Your task to perform on an android device: check storage Image 0: 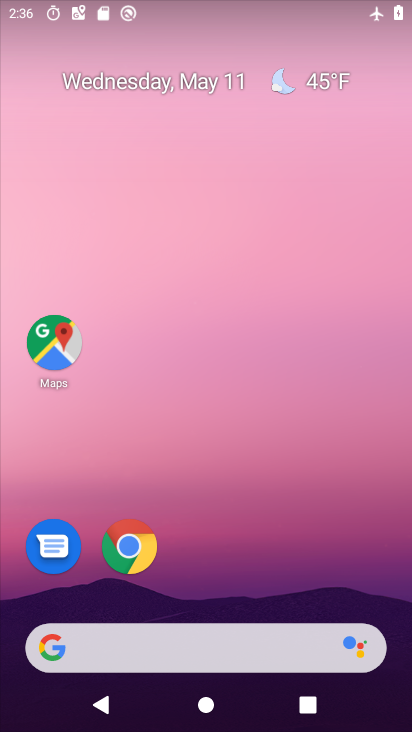
Step 0: drag from (247, 607) to (255, 2)
Your task to perform on an android device: check storage Image 1: 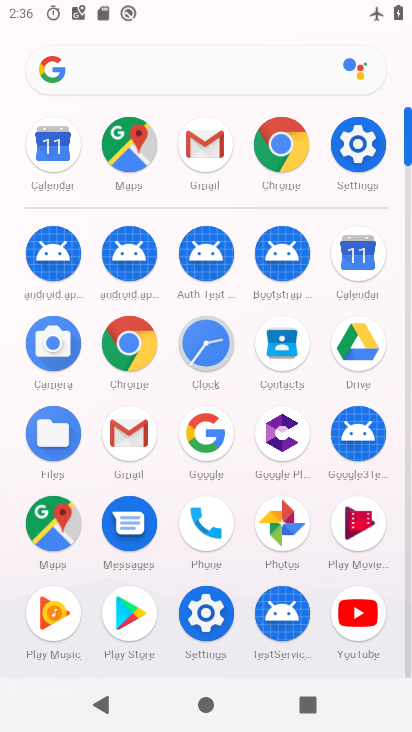
Step 1: click (203, 611)
Your task to perform on an android device: check storage Image 2: 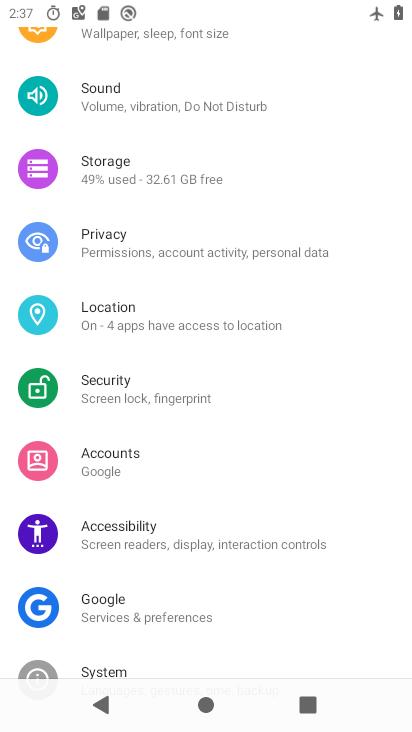
Step 2: click (152, 176)
Your task to perform on an android device: check storage Image 3: 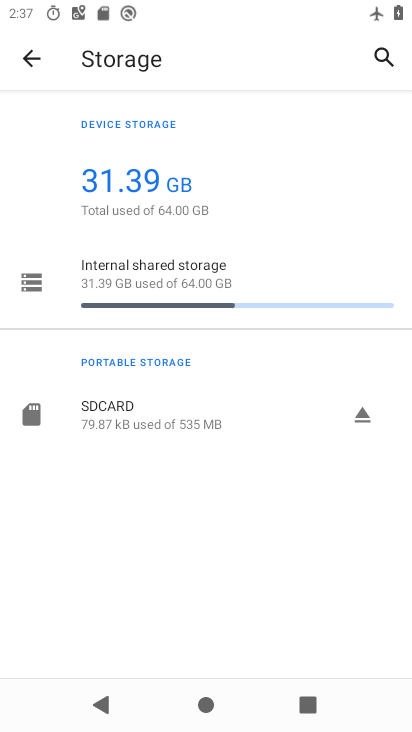
Step 3: click (170, 296)
Your task to perform on an android device: check storage Image 4: 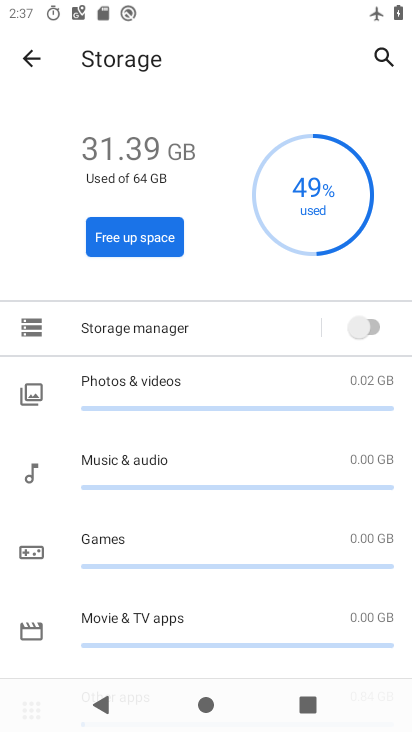
Step 4: task complete